Your task to perform on an android device: Open Chrome and go to settings Image 0: 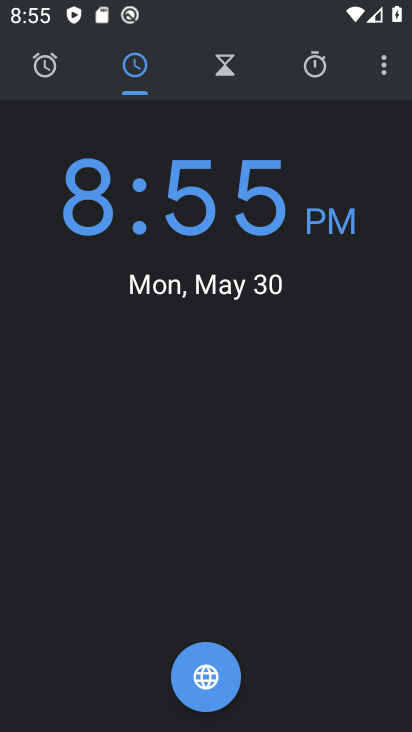
Step 0: press home button
Your task to perform on an android device: Open Chrome and go to settings Image 1: 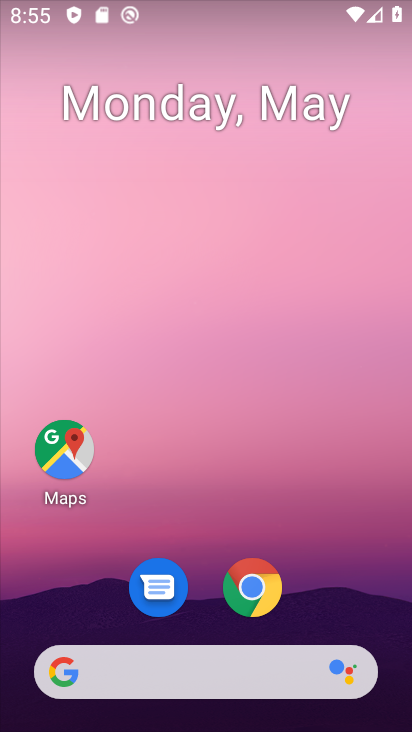
Step 1: click (254, 592)
Your task to perform on an android device: Open Chrome and go to settings Image 2: 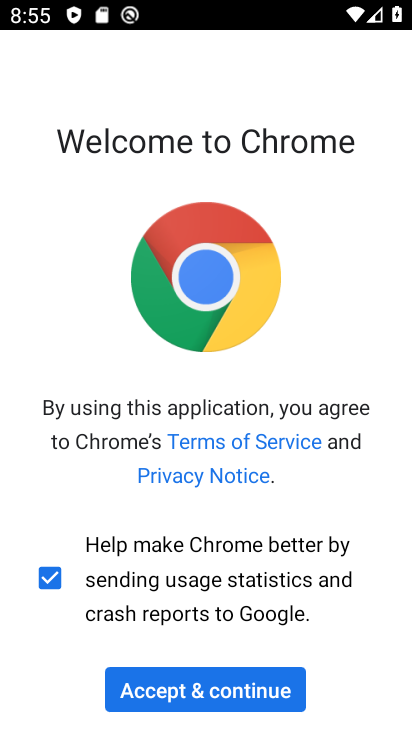
Step 2: click (206, 697)
Your task to perform on an android device: Open Chrome and go to settings Image 3: 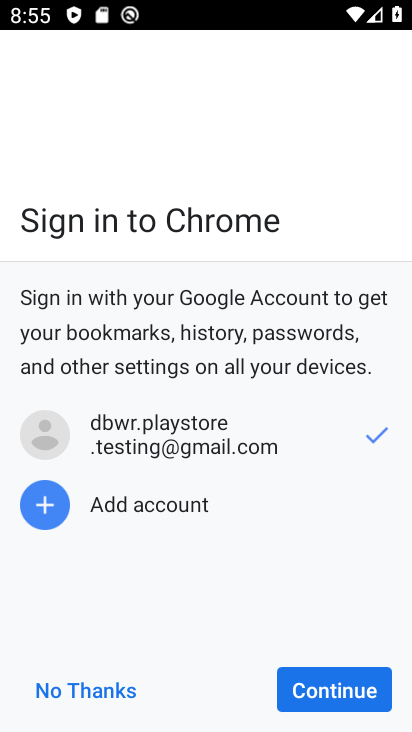
Step 3: click (336, 681)
Your task to perform on an android device: Open Chrome and go to settings Image 4: 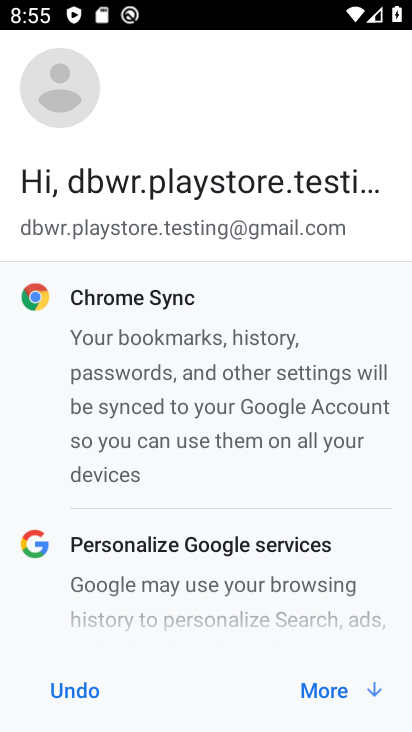
Step 4: click (331, 705)
Your task to perform on an android device: Open Chrome and go to settings Image 5: 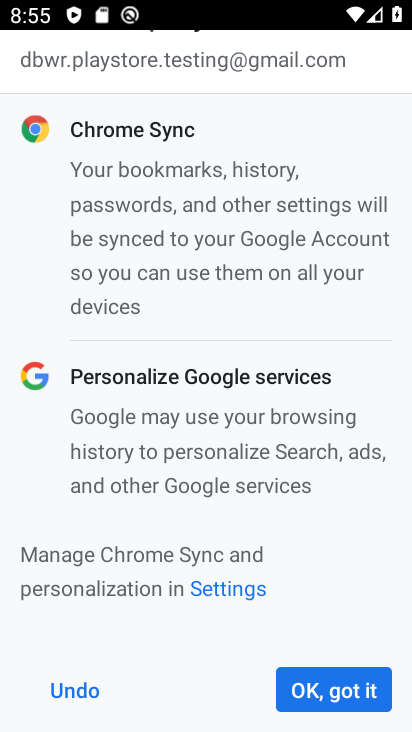
Step 5: click (331, 703)
Your task to perform on an android device: Open Chrome and go to settings Image 6: 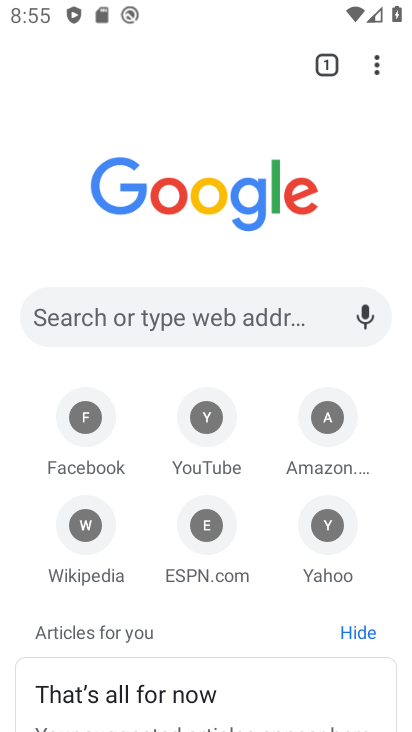
Step 6: task complete